Your task to perform on an android device: Open Google Chrome and open the bookmarks view Image 0: 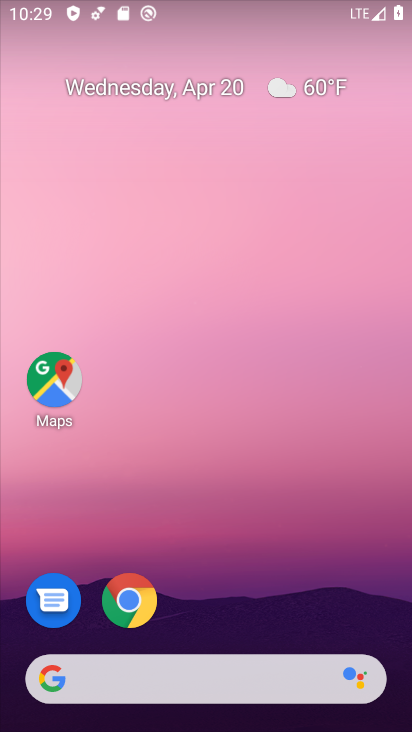
Step 0: drag from (301, 628) to (313, 144)
Your task to perform on an android device: Open Google Chrome and open the bookmarks view Image 1: 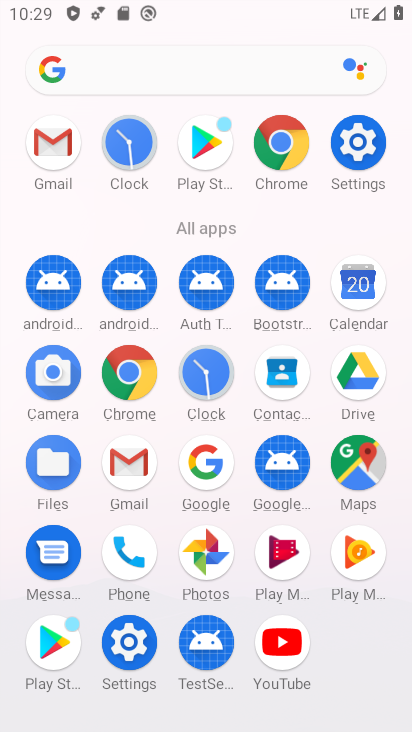
Step 1: click (126, 375)
Your task to perform on an android device: Open Google Chrome and open the bookmarks view Image 2: 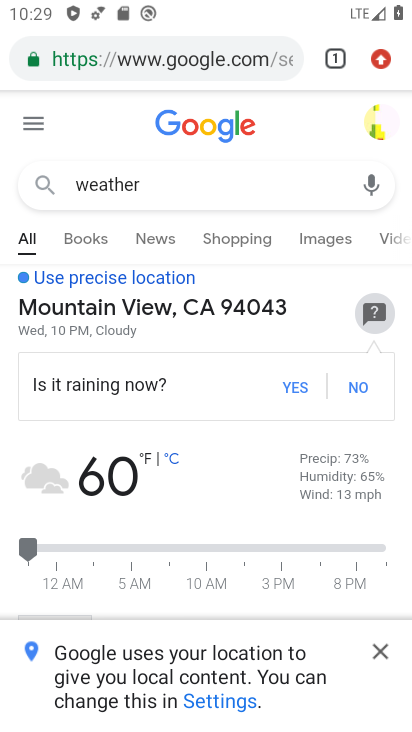
Step 2: task complete